Your task to perform on an android device: change your default location settings in chrome Image 0: 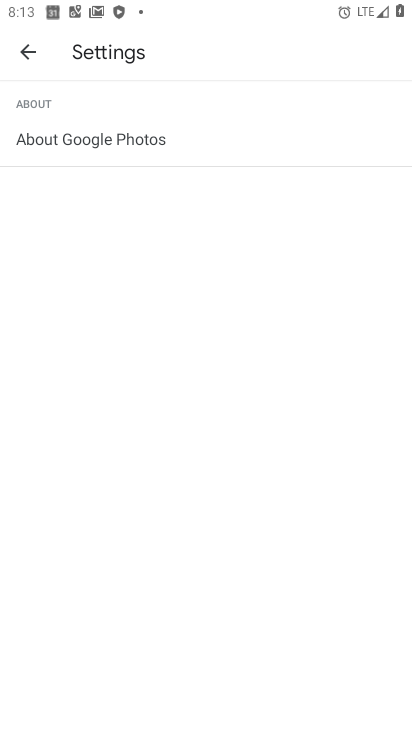
Step 0: press home button
Your task to perform on an android device: change your default location settings in chrome Image 1: 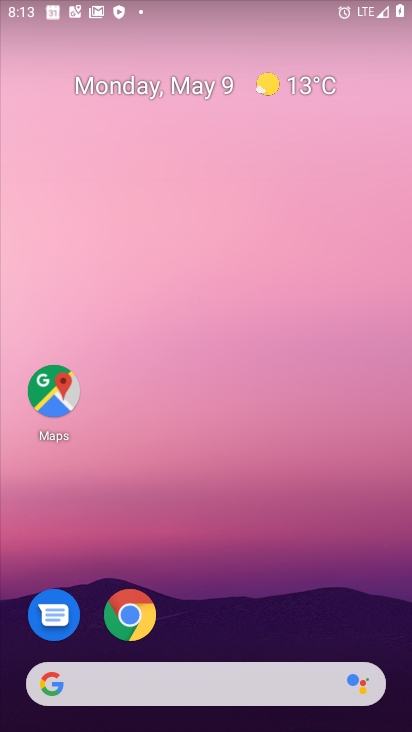
Step 1: click (132, 611)
Your task to perform on an android device: change your default location settings in chrome Image 2: 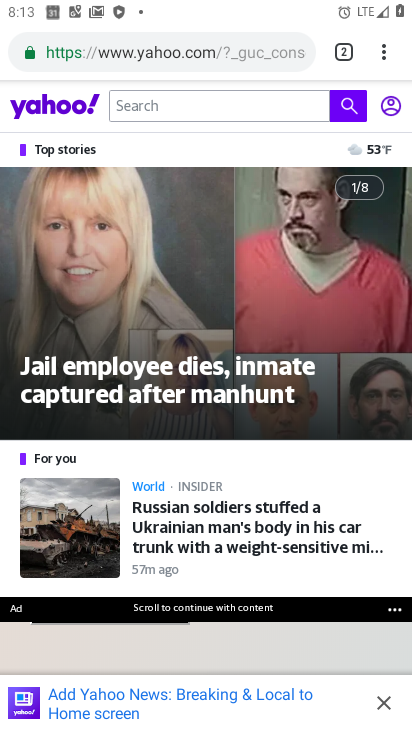
Step 2: click (373, 45)
Your task to perform on an android device: change your default location settings in chrome Image 3: 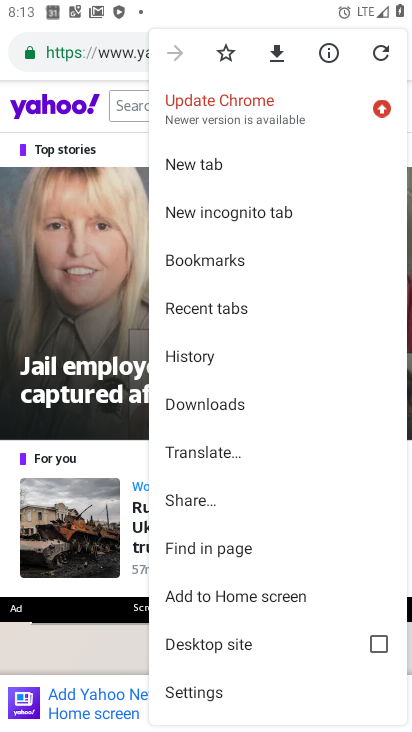
Step 3: click (216, 676)
Your task to perform on an android device: change your default location settings in chrome Image 4: 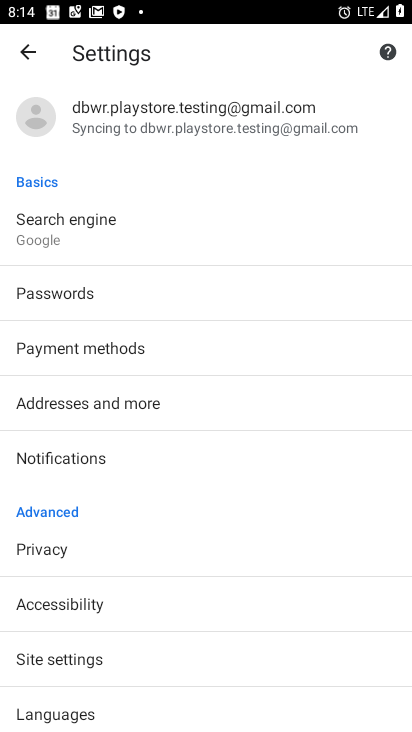
Step 4: drag from (137, 697) to (134, 423)
Your task to perform on an android device: change your default location settings in chrome Image 5: 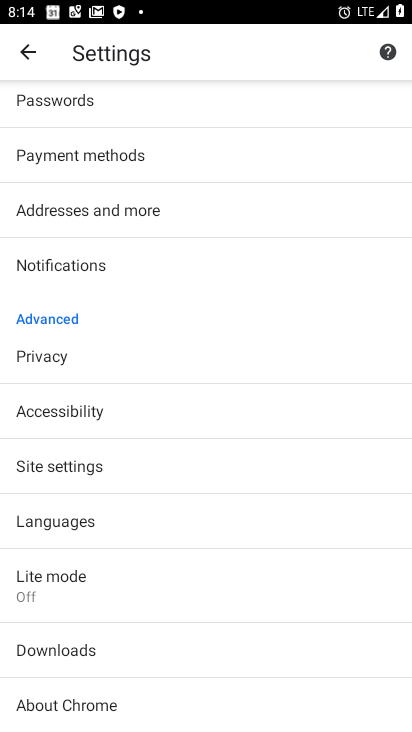
Step 5: drag from (169, 299) to (173, 648)
Your task to perform on an android device: change your default location settings in chrome Image 6: 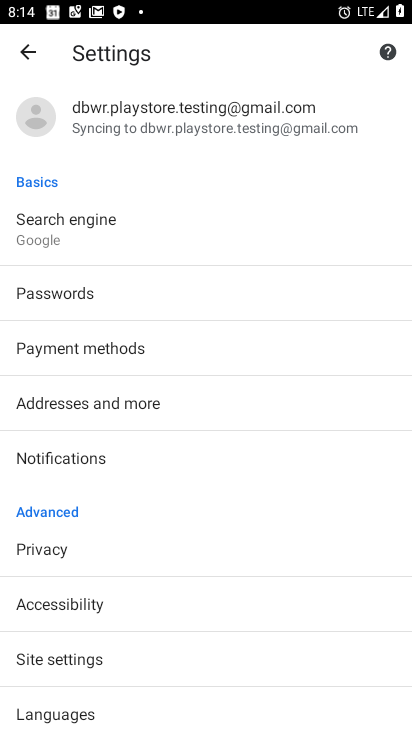
Step 6: drag from (168, 598) to (198, 236)
Your task to perform on an android device: change your default location settings in chrome Image 7: 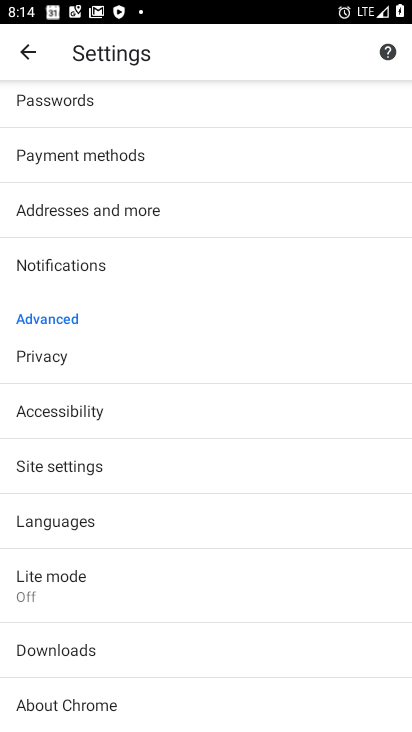
Step 7: drag from (146, 209) to (90, 625)
Your task to perform on an android device: change your default location settings in chrome Image 8: 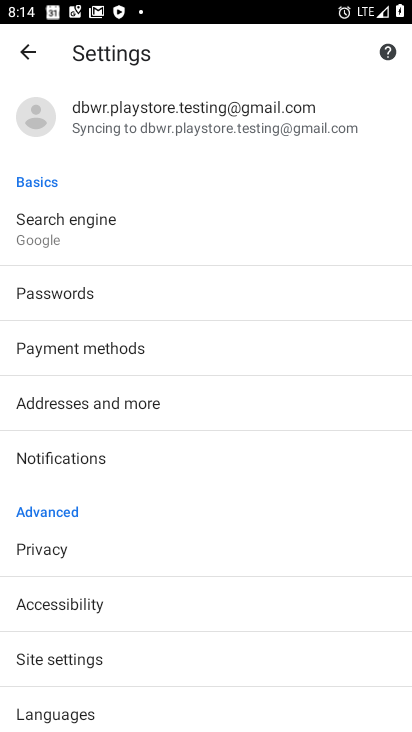
Step 8: drag from (108, 428) to (122, 228)
Your task to perform on an android device: change your default location settings in chrome Image 9: 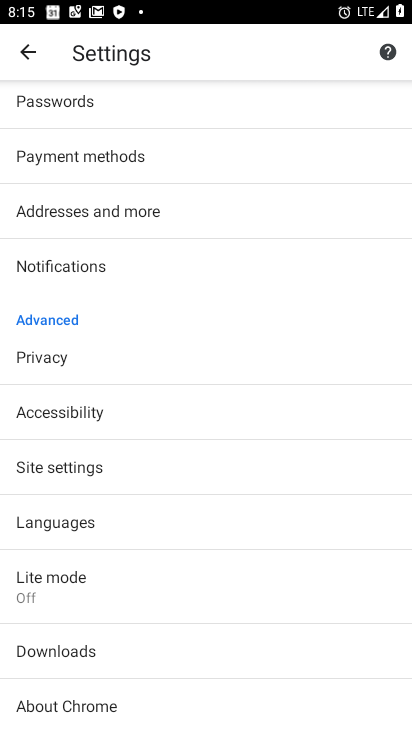
Step 9: drag from (151, 691) to (274, 183)
Your task to perform on an android device: change your default location settings in chrome Image 10: 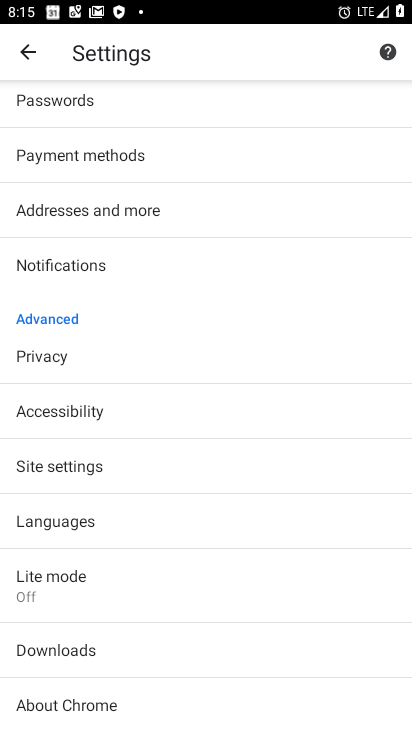
Step 10: click (130, 474)
Your task to perform on an android device: change your default location settings in chrome Image 11: 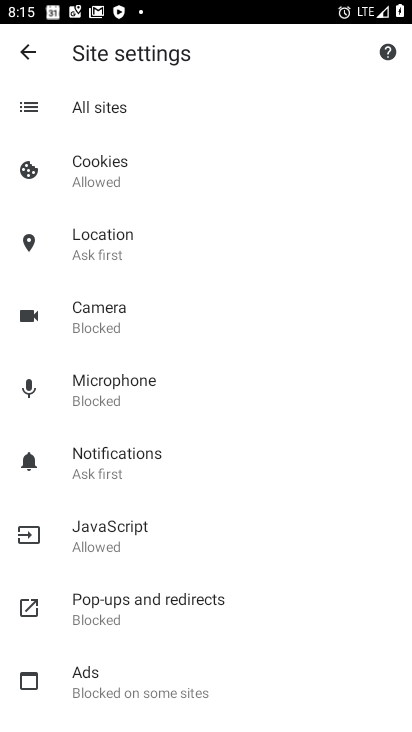
Step 11: click (139, 220)
Your task to perform on an android device: change your default location settings in chrome Image 12: 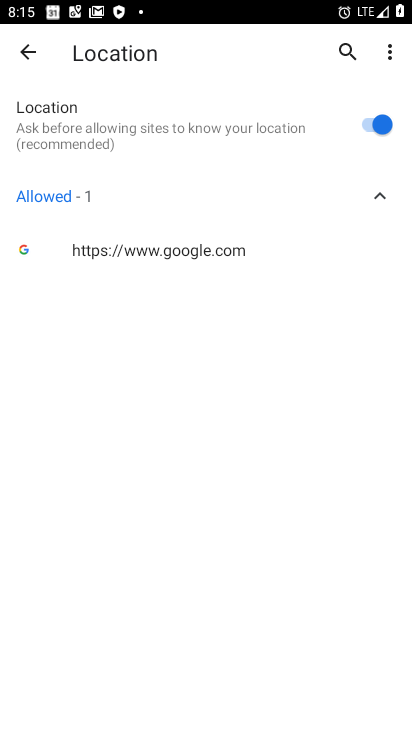
Step 12: click (383, 124)
Your task to perform on an android device: change your default location settings in chrome Image 13: 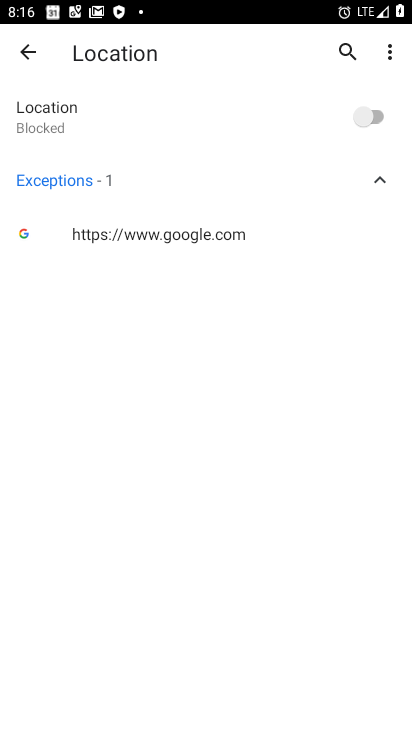
Step 13: task complete